Your task to perform on an android device: toggle wifi Image 0: 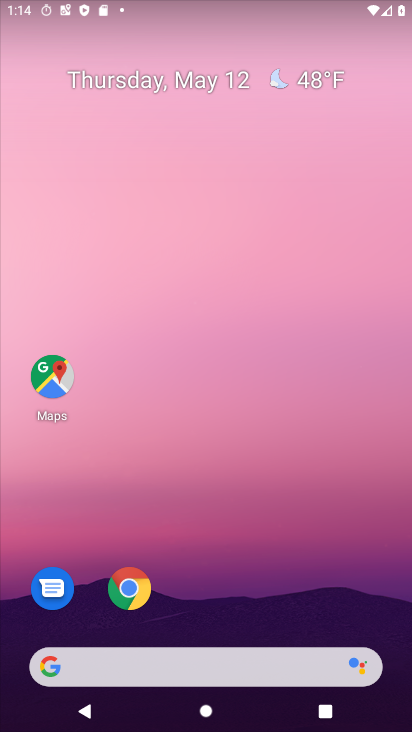
Step 0: drag from (248, 582) to (251, 53)
Your task to perform on an android device: toggle wifi Image 1: 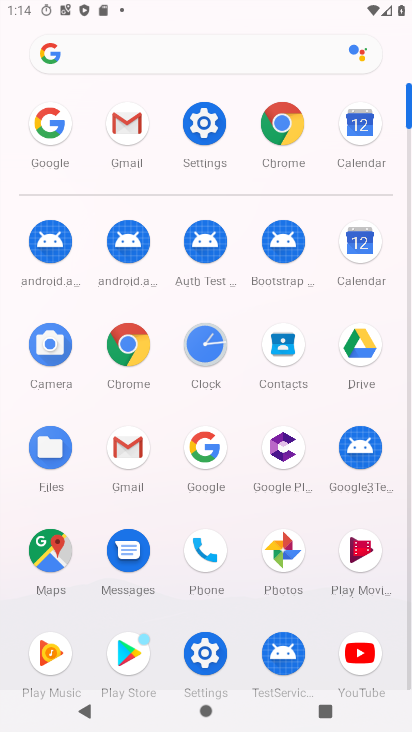
Step 1: click (204, 128)
Your task to perform on an android device: toggle wifi Image 2: 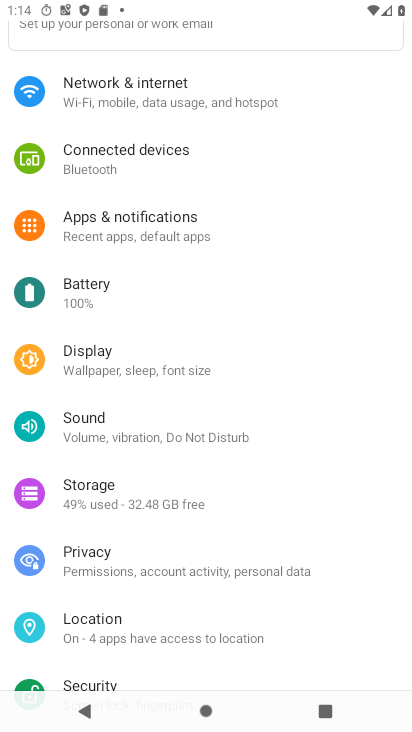
Step 2: click (195, 94)
Your task to perform on an android device: toggle wifi Image 3: 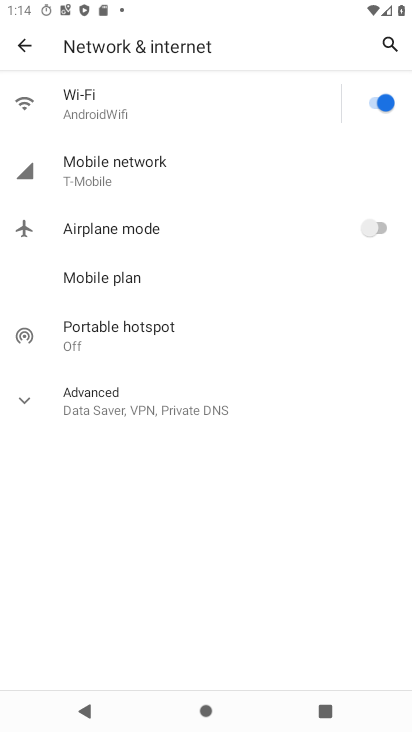
Step 3: click (378, 103)
Your task to perform on an android device: toggle wifi Image 4: 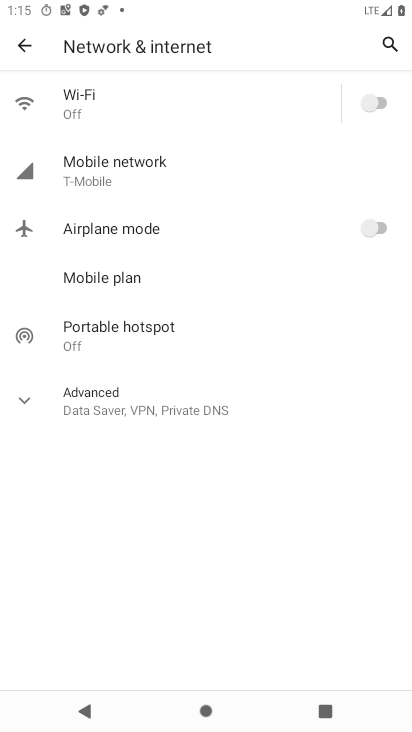
Step 4: task complete